Your task to perform on an android device: open app "ColorNote Notepad Notes" Image 0: 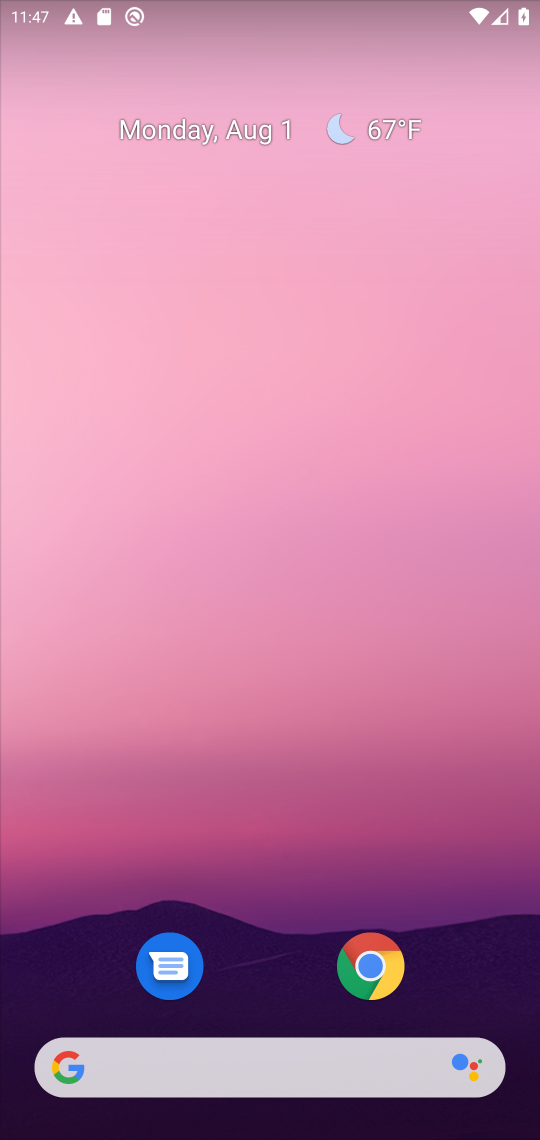
Step 0: press home button
Your task to perform on an android device: open app "ColorNote Notepad Notes" Image 1: 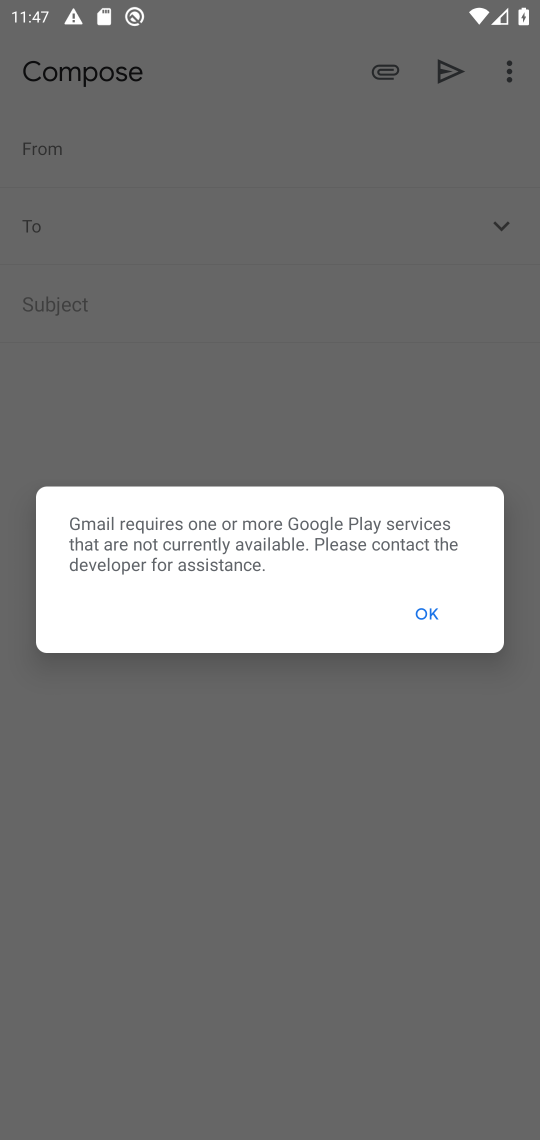
Step 1: drag from (466, 248) to (469, 88)
Your task to perform on an android device: open app "ColorNote Notepad Notes" Image 2: 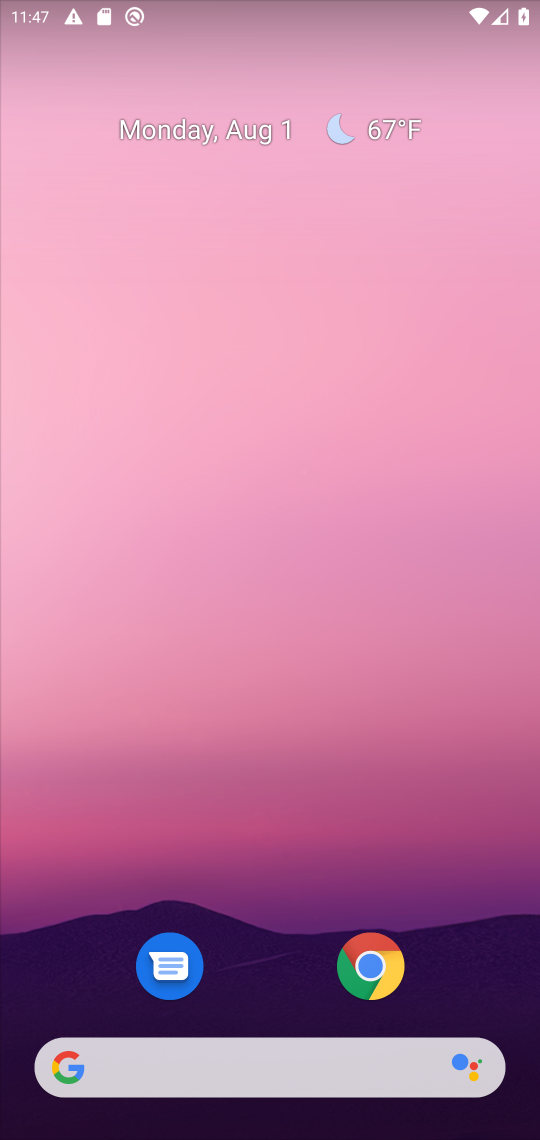
Step 2: drag from (449, 716) to (446, 64)
Your task to perform on an android device: open app "ColorNote Notepad Notes" Image 3: 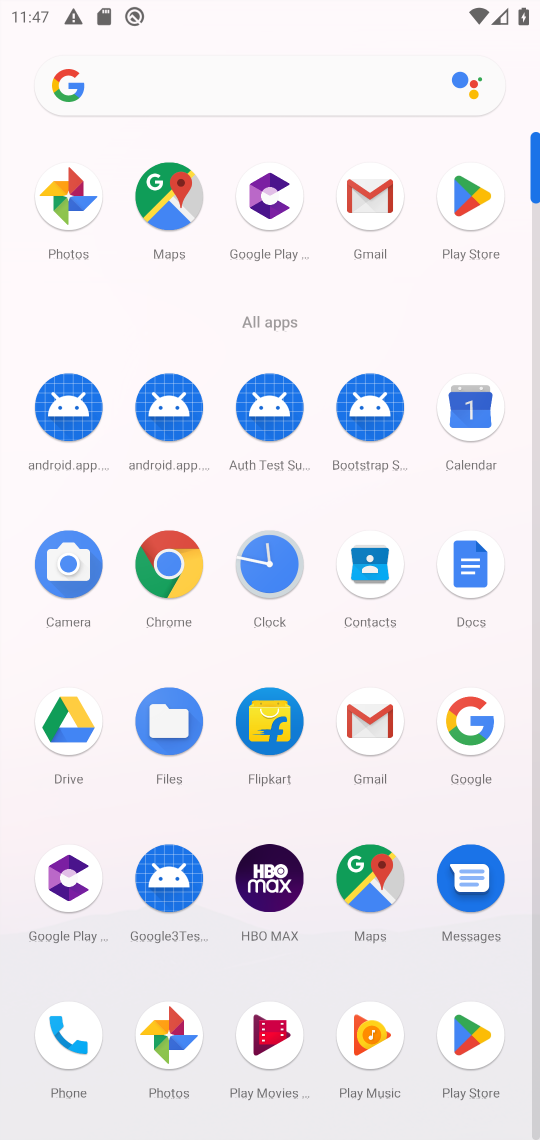
Step 3: click (461, 201)
Your task to perform on an android device: open app "ColorNote Notepad Notes" Image 4: 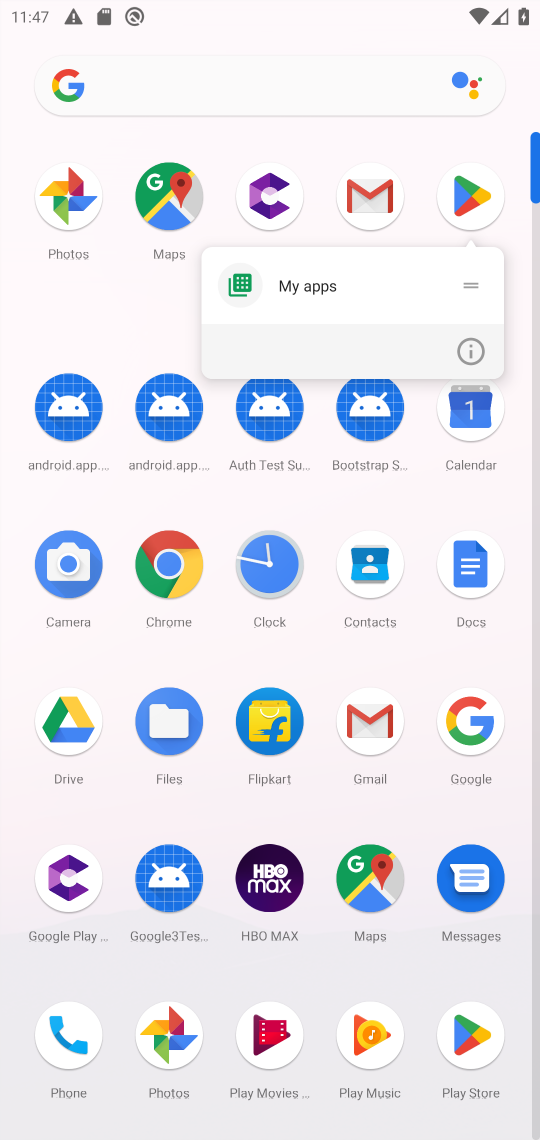
Step 4: click (483, 188)
Your task to perform on an android device: open app "ColorNote Notepad Notes" Image 5: 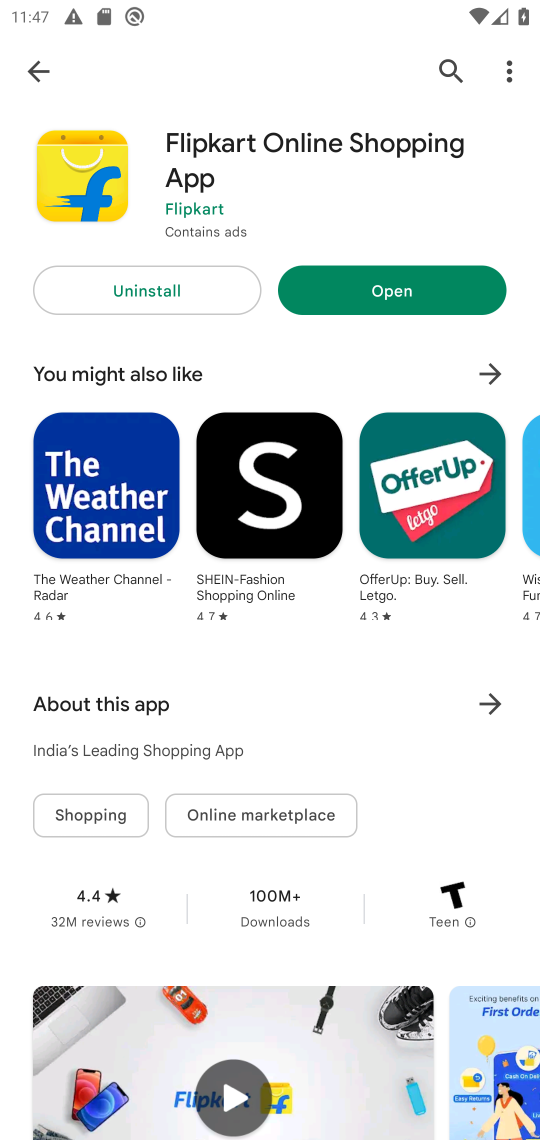
Step 5: click (448, 51)
Your task to perform on an android device: open app "ColorNote Notepad Notes" Image 6: 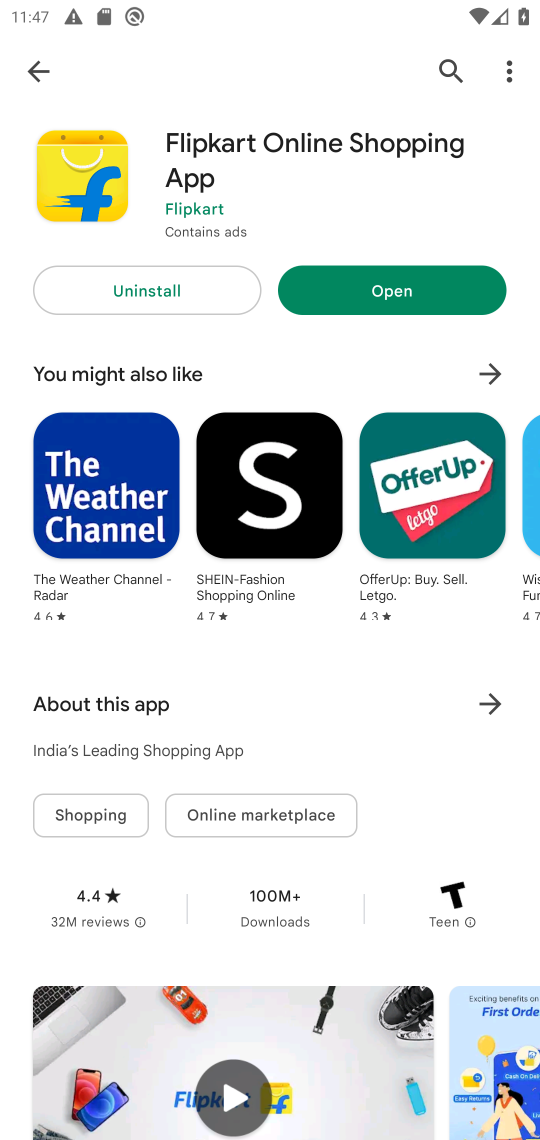
Step 6: click (449, 73)
Your task to perform on an android device: open app "ColorNote Notepad Notes" Image 7: 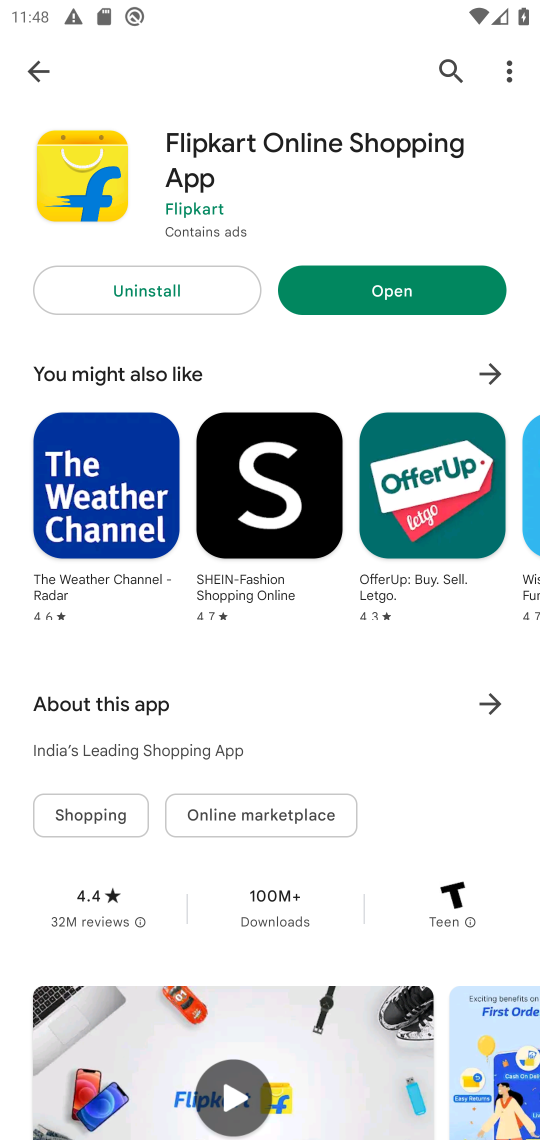
Step 7: click (443, 60)
Your task to perform on an android device: open app "ColorNote Notepad Notes" Image 8: 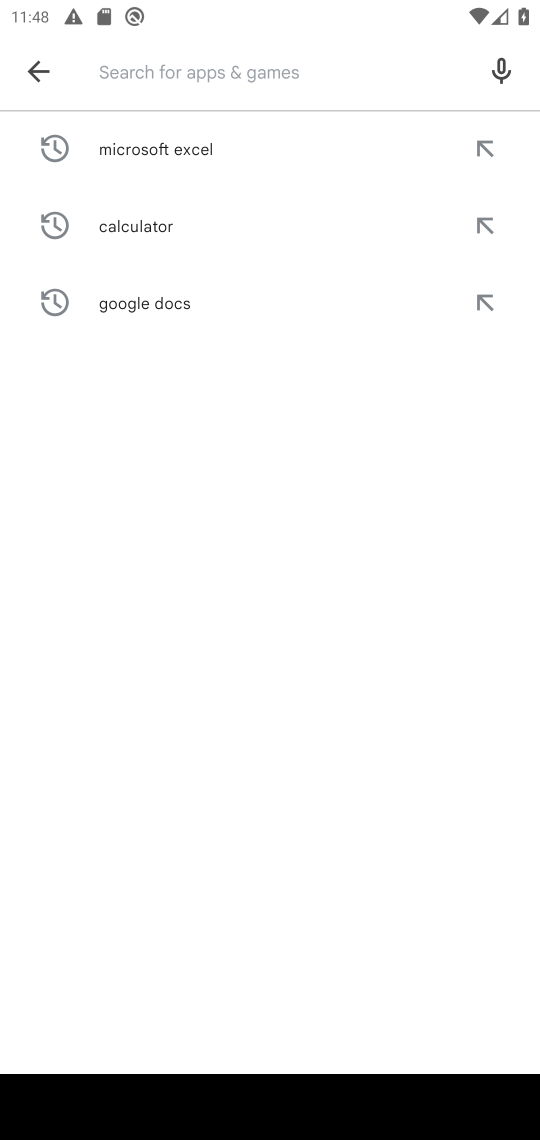
Step 8: click (275, 72)
Your task to perform on an android device: open app "ColorNote Notepad Notes" Image 9: 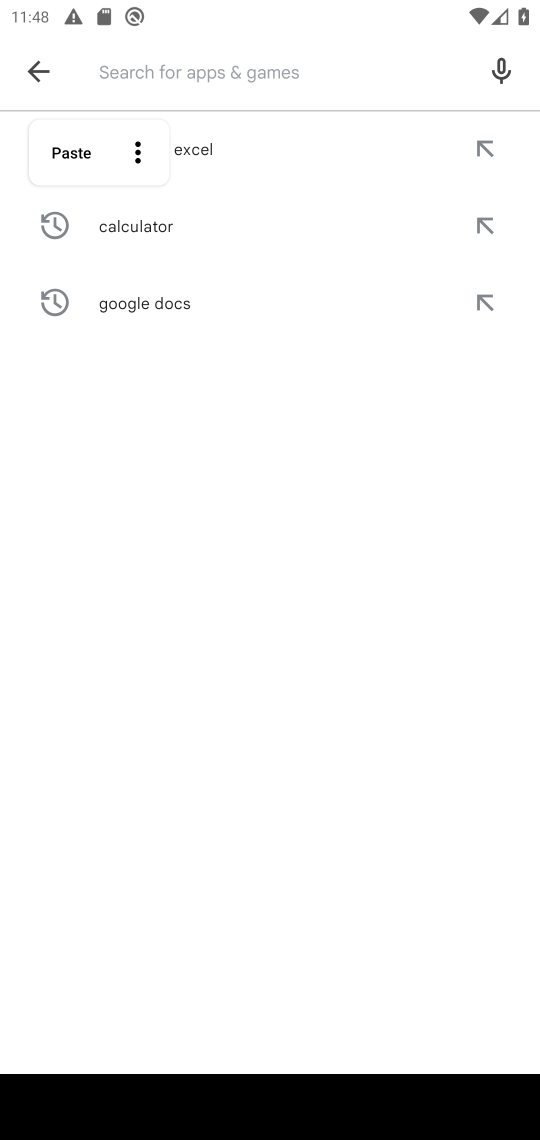
Step 9: type "ColorNote Notepad Notes"
Your task to perform on an android device: open app "ColorNote Notepad Notes" Image 10: 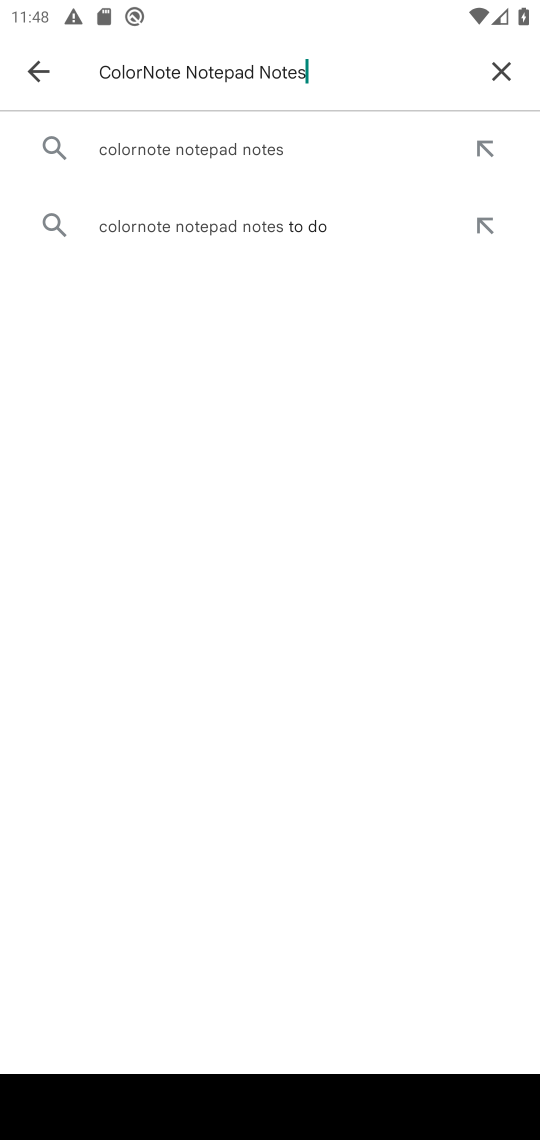
Step 10: click (244, 153)
Your task to perform on an android device: open app "ColorNote Notepad Notes" Image 11: 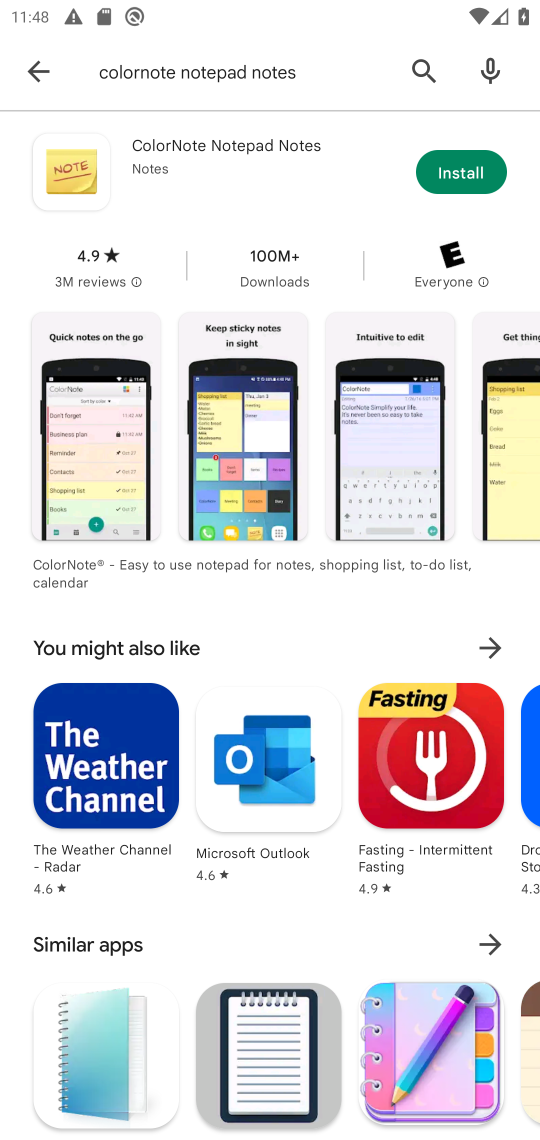
Step 11: task complete